Your task to perform on an android device: turn on showing notifications on the lock screen Image 0: 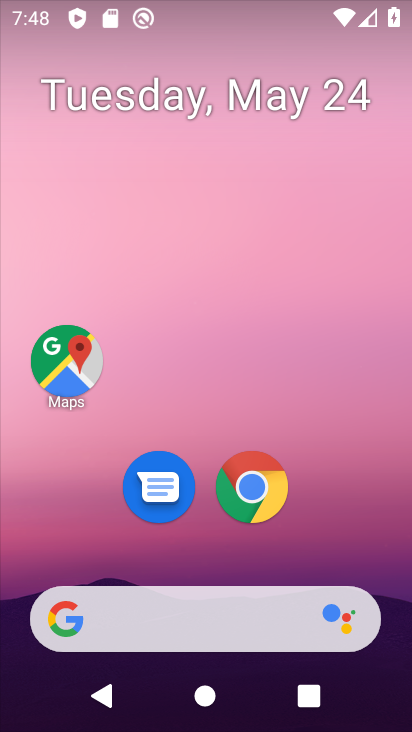
Step 0: drag from (38, 600) to (277, 127)
Your task to perform on an android device: turn on showing notifications on the lock screen Image 1: 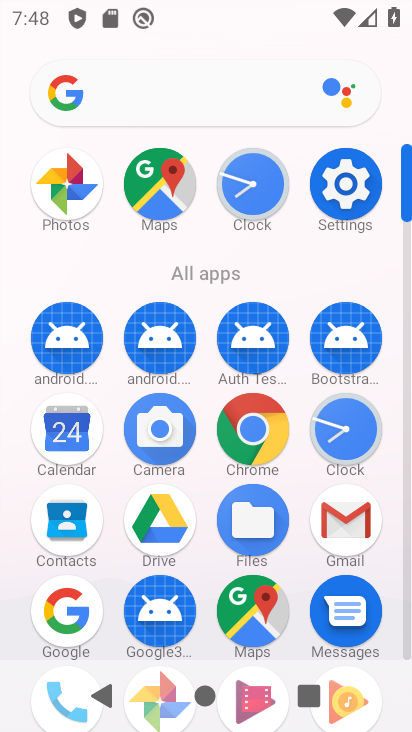
Step 1: click (365, 183)
Your task to perform on an android device: turn on showing notifications on the lock screen Image 2: 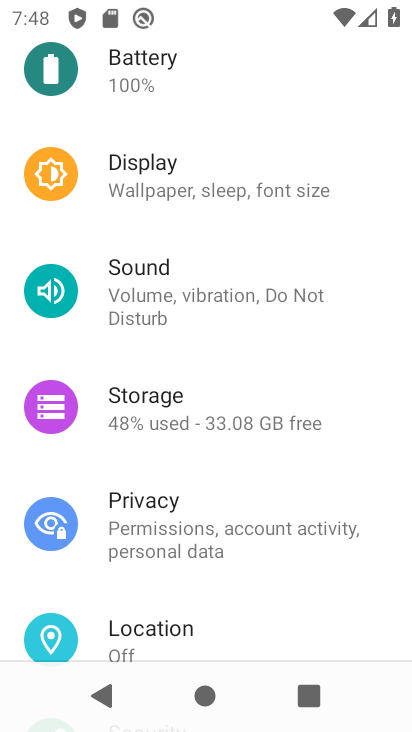
Step 2: drag from (180, 134) to (129, 481)
Your task to perform on an android device: turn on showing notifications on the lock screen Image 3: 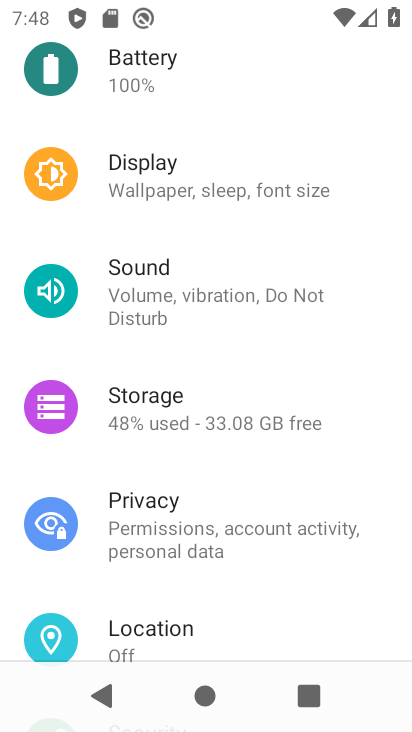
Step 3: drag from (134, 144) to (142, 591)
Your task to perform on an android device: turn on showing notifications on the lock screen Image 4: 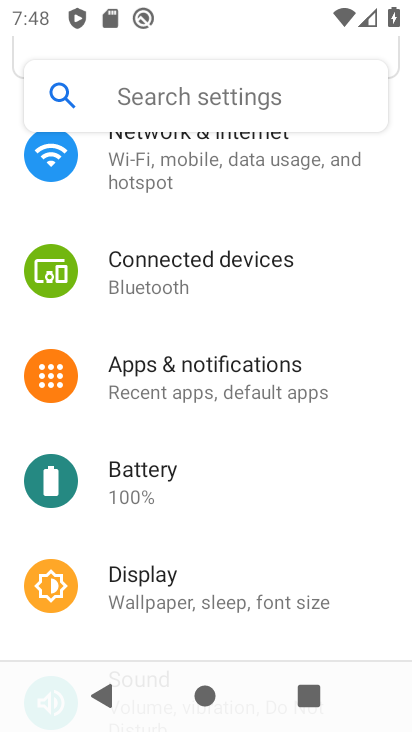
Step 4: click (268, 381)
Your task to perform on an android device: turn on showing notifications on the lock screen Image 5: 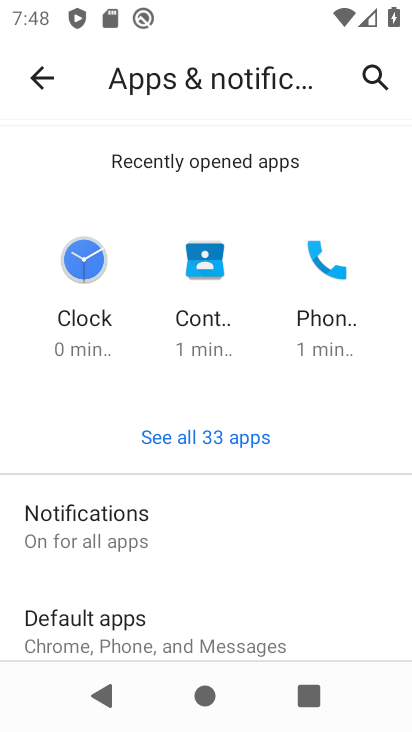
Step 5: click (87, 528)
Your task to perform on an android device: turn on showing notifications on the lock screen Image 6: 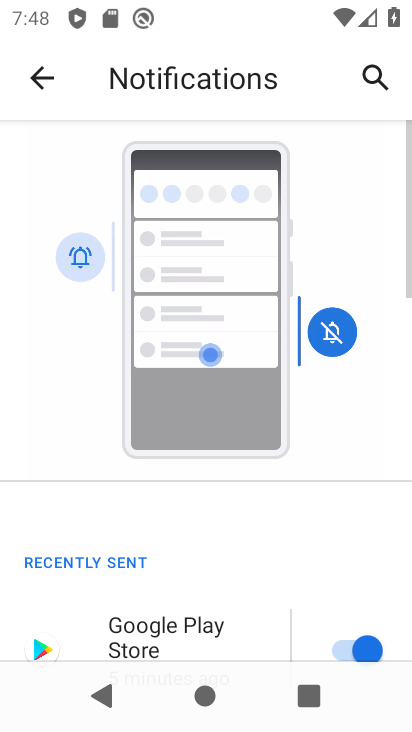
Step 6: drag from (2, 540) to (293, 146)
Your task to perform on an android device: turn on showing notifications on the lock screen Image 7: 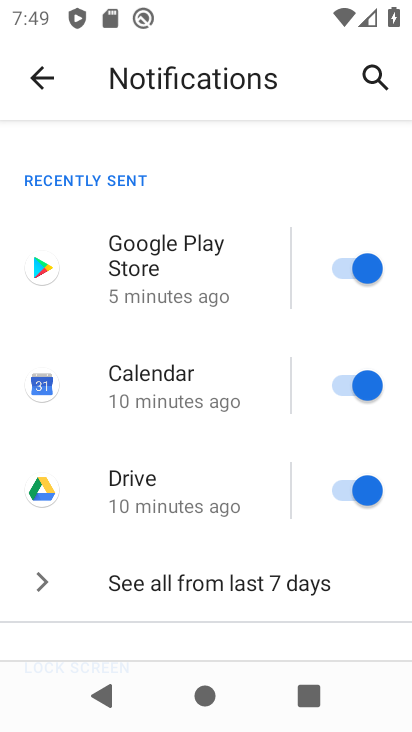
Step 7: drag from (17, 539) to (266, 271)
Your task to perform on an android device: turn on showing notifications on the lock screen Image 8: 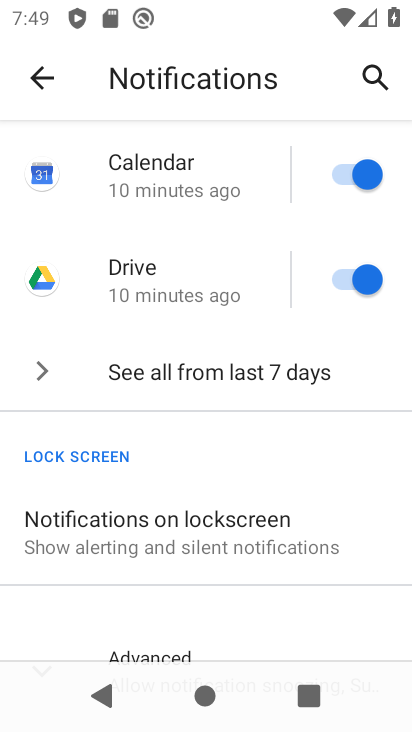
Step 8: click (196, 544)
Your task to perform on an android device: turn on showing notifications on the lock screen Image 9: 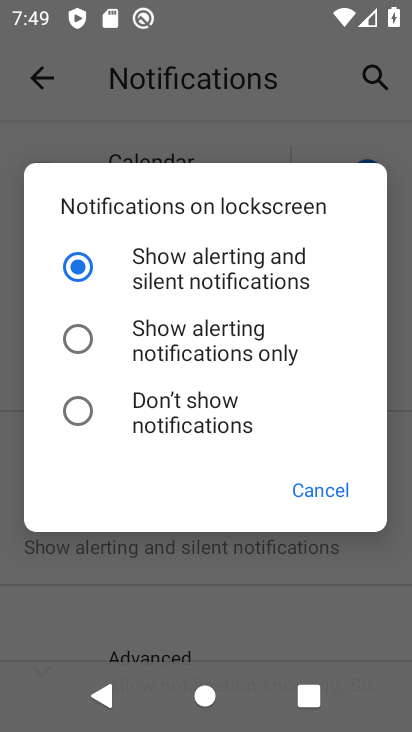
Step 9: task complete